Your task to perform on an android device: Is it going to rain tomorrow? Image 0: 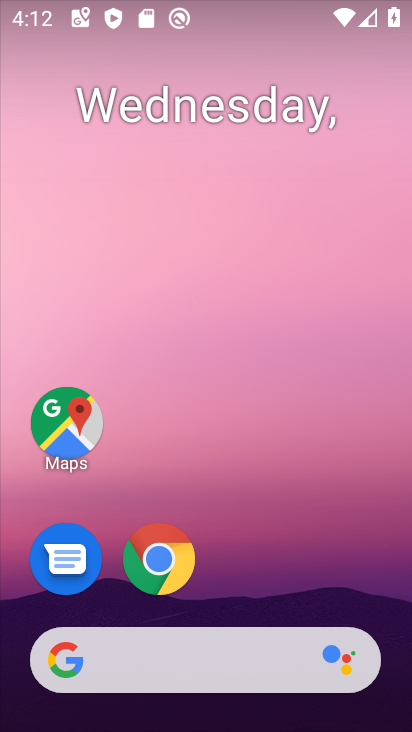
Step 0: click (174, 659)
Your task to perform on an android device: Is it going to rain tomorrow? Image 1: 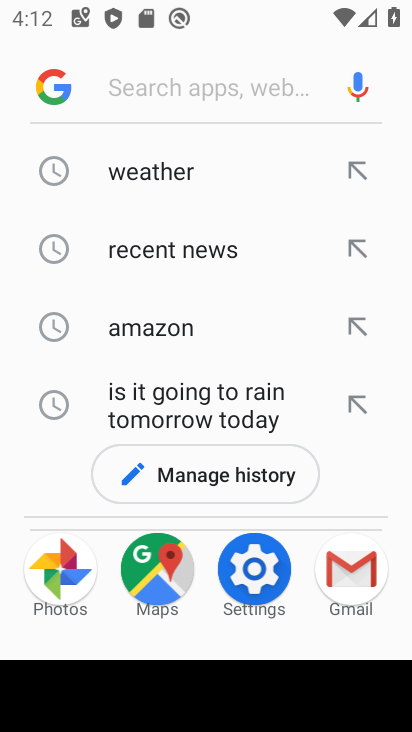
Step 1: click (161, 170)
Your task to perform on an android device: Is it going to rain tomorrow? Image 2: 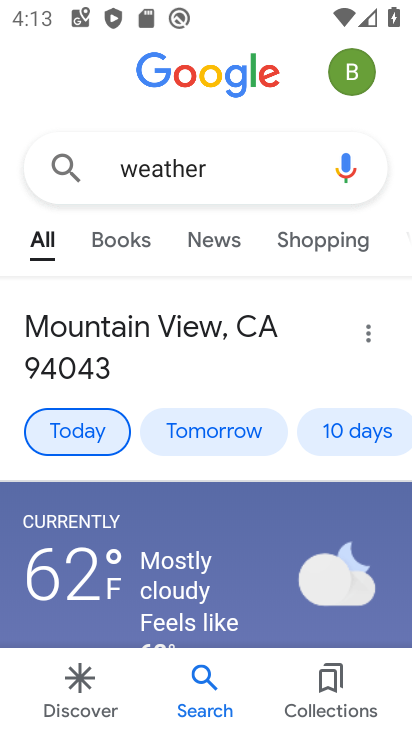
Step 2: click (206, 431)
Your task to perform on an android device: Is it going to rain tomorrow? Image 3: 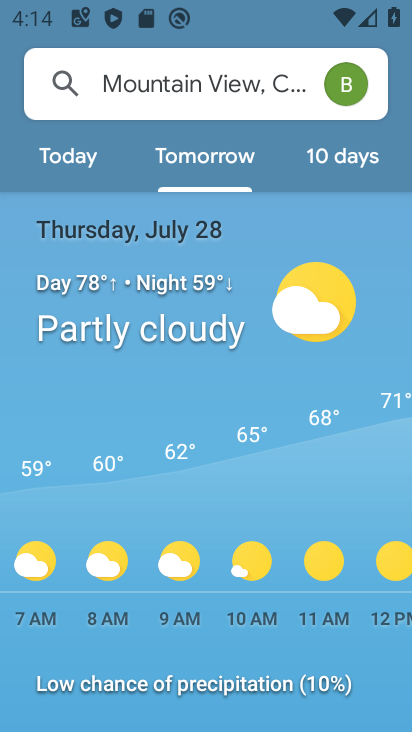
Step 3: task complete